Your task to perform on an android device: turn off notifications settings in the gmail app Image 0: 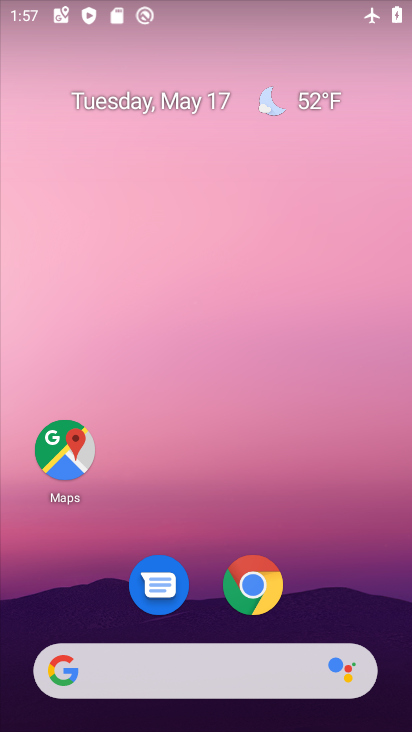
Step 0: drag from (246, 484) to (305, 0)
Your task to perform on an android device: turn off notifications settings in the gmail app Image 1: 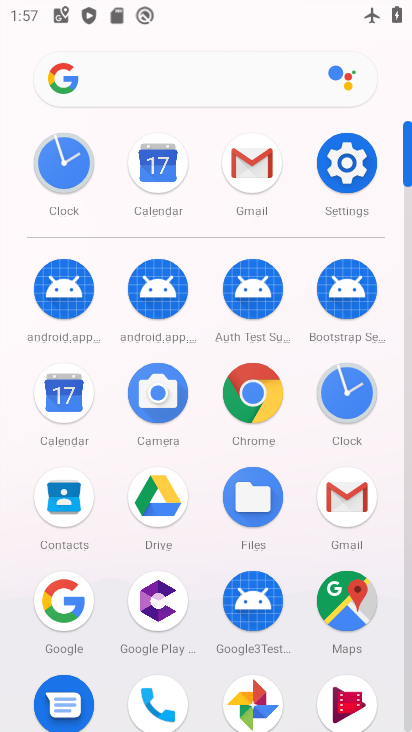
Step 1: click (264, 174)
Your task to perform on an android device: turn off notifications settings in the gmail app Image 2: 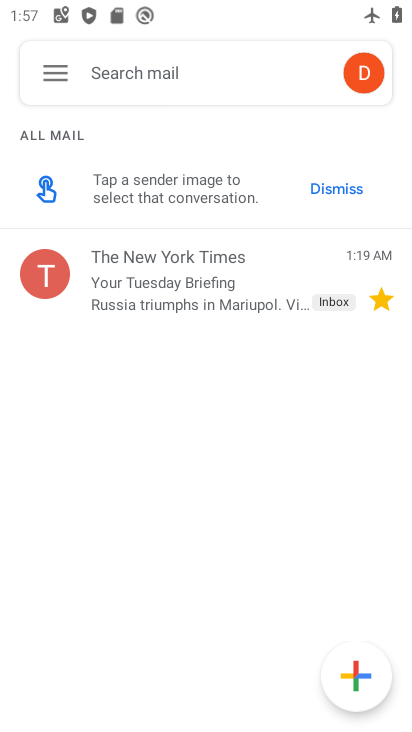
Step 2: click (53, 74)
Your task to perform on an android device: turn off notifications settings in the gmail app Image 3: 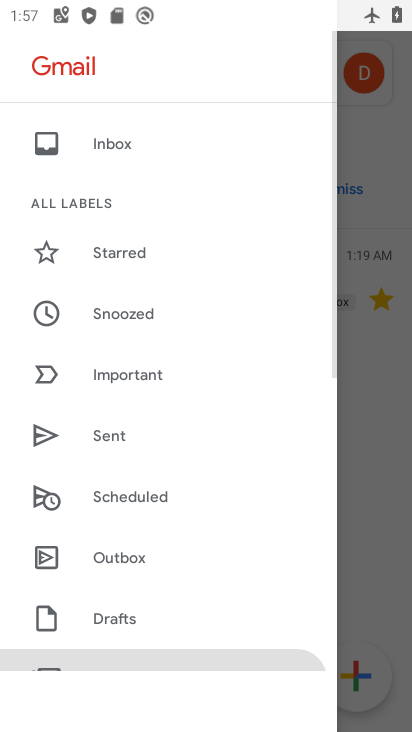
Step 3: drag from (124, 507) to (129, 242)
Your task to perform on an android device: turn off notifications settings in the gmail app Image 4: 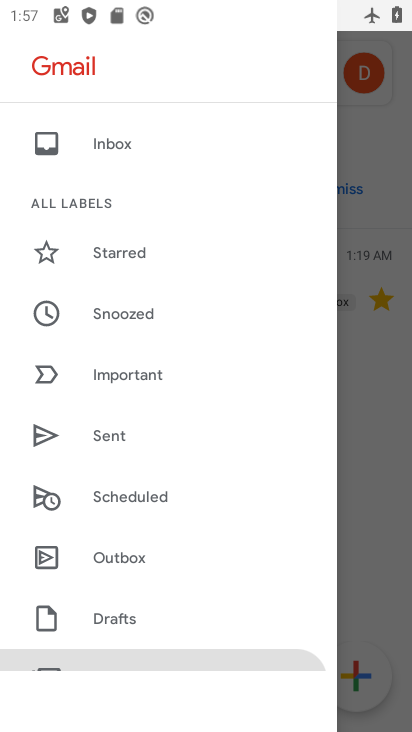
Step 4: drag from (162, 513) to (221, 190)
Your task to perform on an android device: turn off notifications settings in the gmail app Image 5: 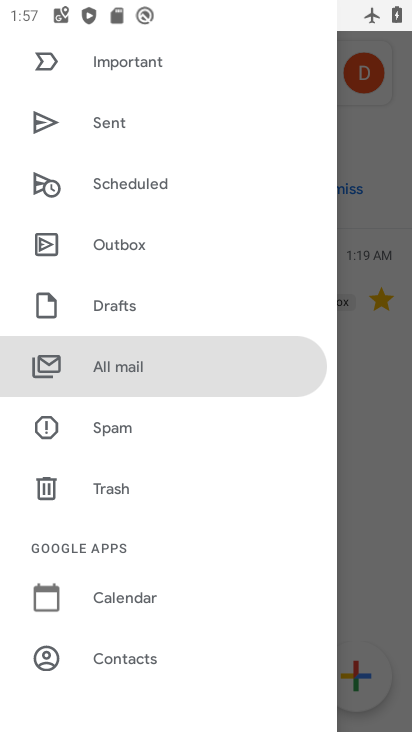
Step 5: drag from (180, 555) to (208, 257)
Your task to perform on an android device: turn off notifications settings in the gmail app Image 6: 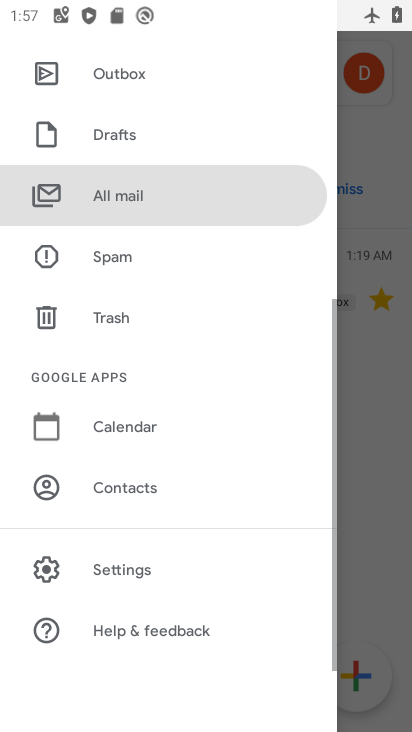
Step 6: click (132, 565)
Your task to perform on an android device: turn off notifications settings in the gmail app Image 7: 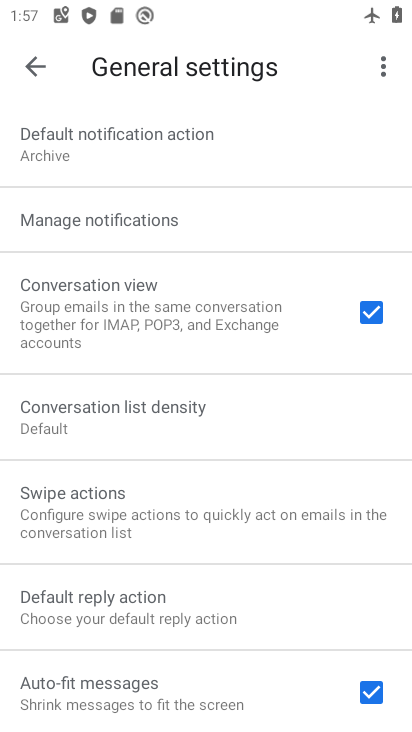
Step 7: click (181, 224)
Your task to perform on an android device: turn off notifications settings in the gmail app Image 8: 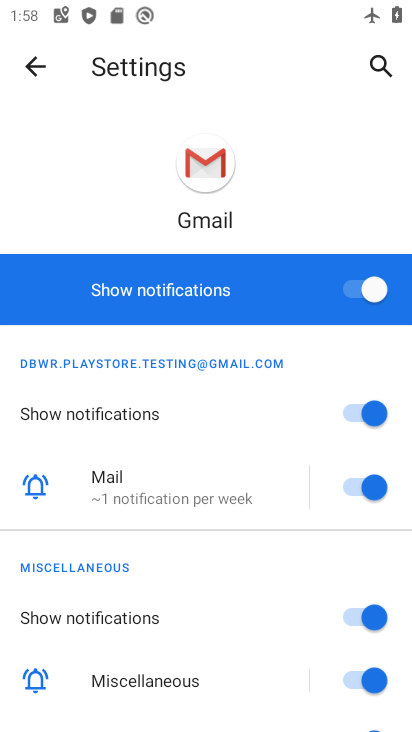
Step 8: click (365, 297)
Your task to perform on an android device: turn off notifications settings in the gmail app Image 9: 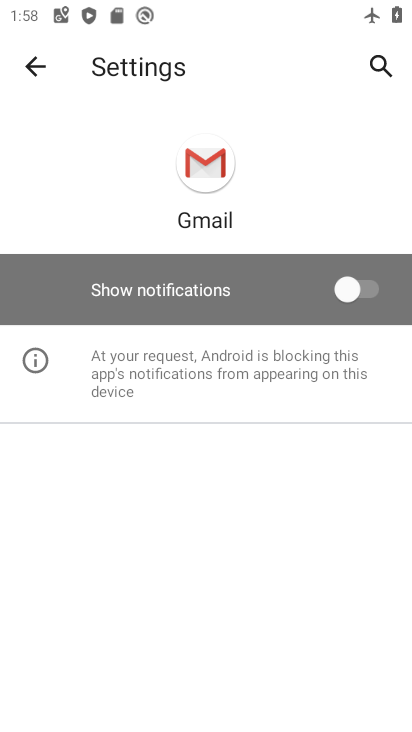
Step 9: task complete